Your task to perform on an android device: turn on location history Image 0: 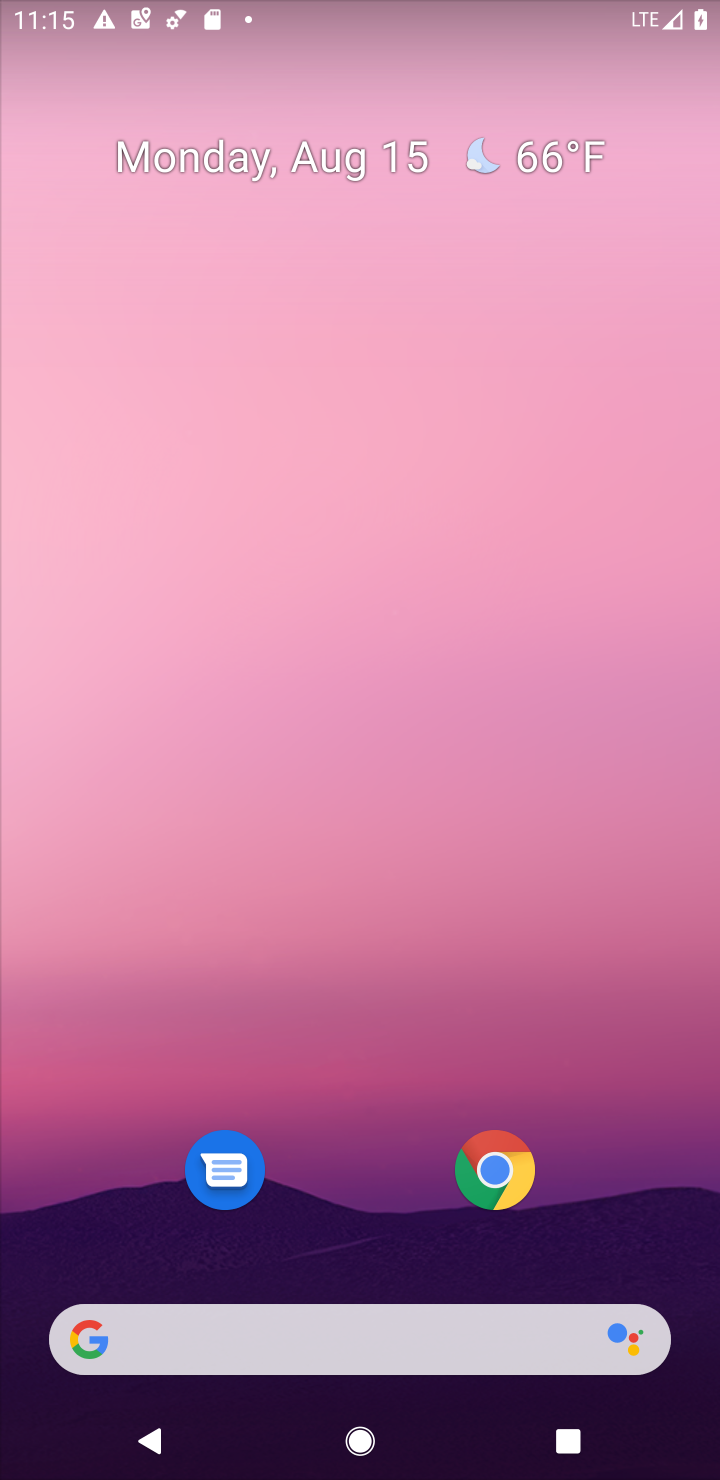
Step 0: drag from (380, 1279) to (403, 68)
Your task to perform on an android device: turn on location history Image 1: 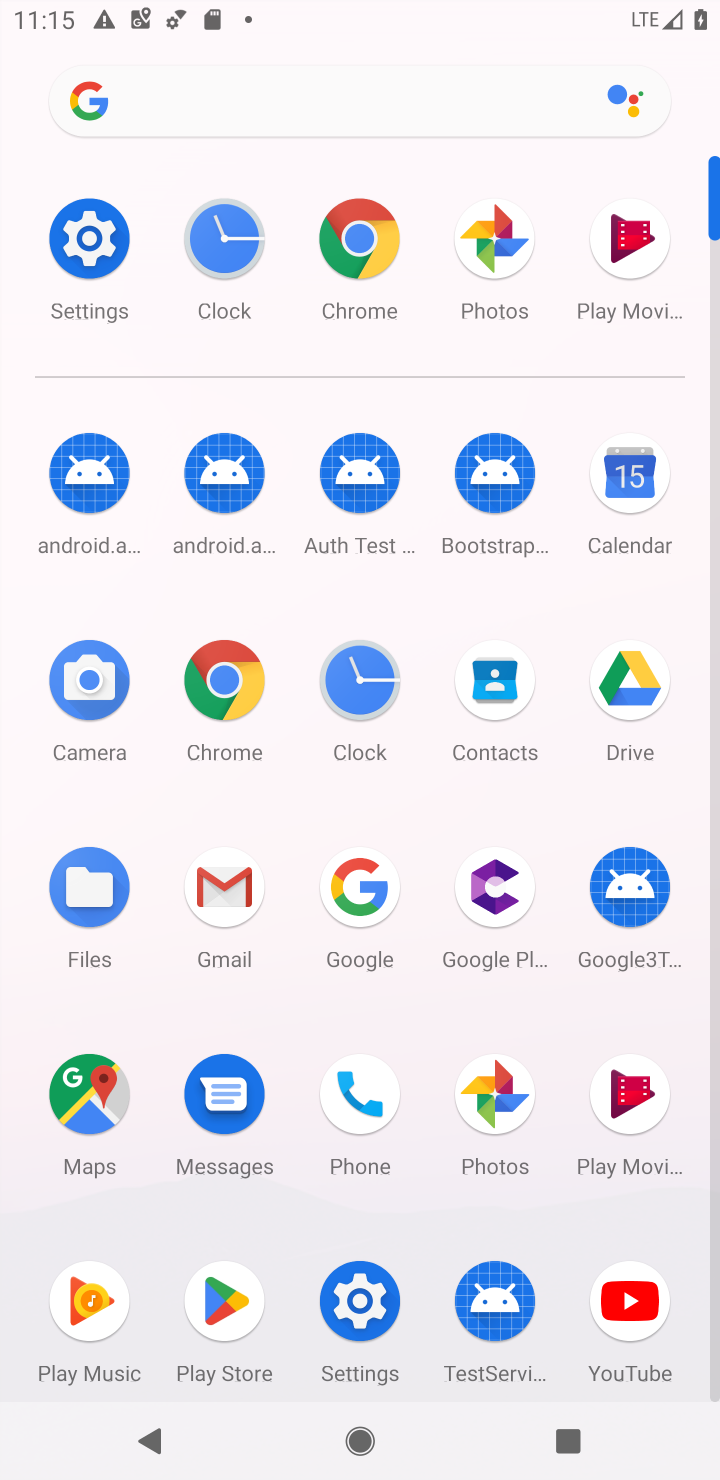
Step 1: click (82, 224)
Your task to perform on an android device: turn on location history Image 2: 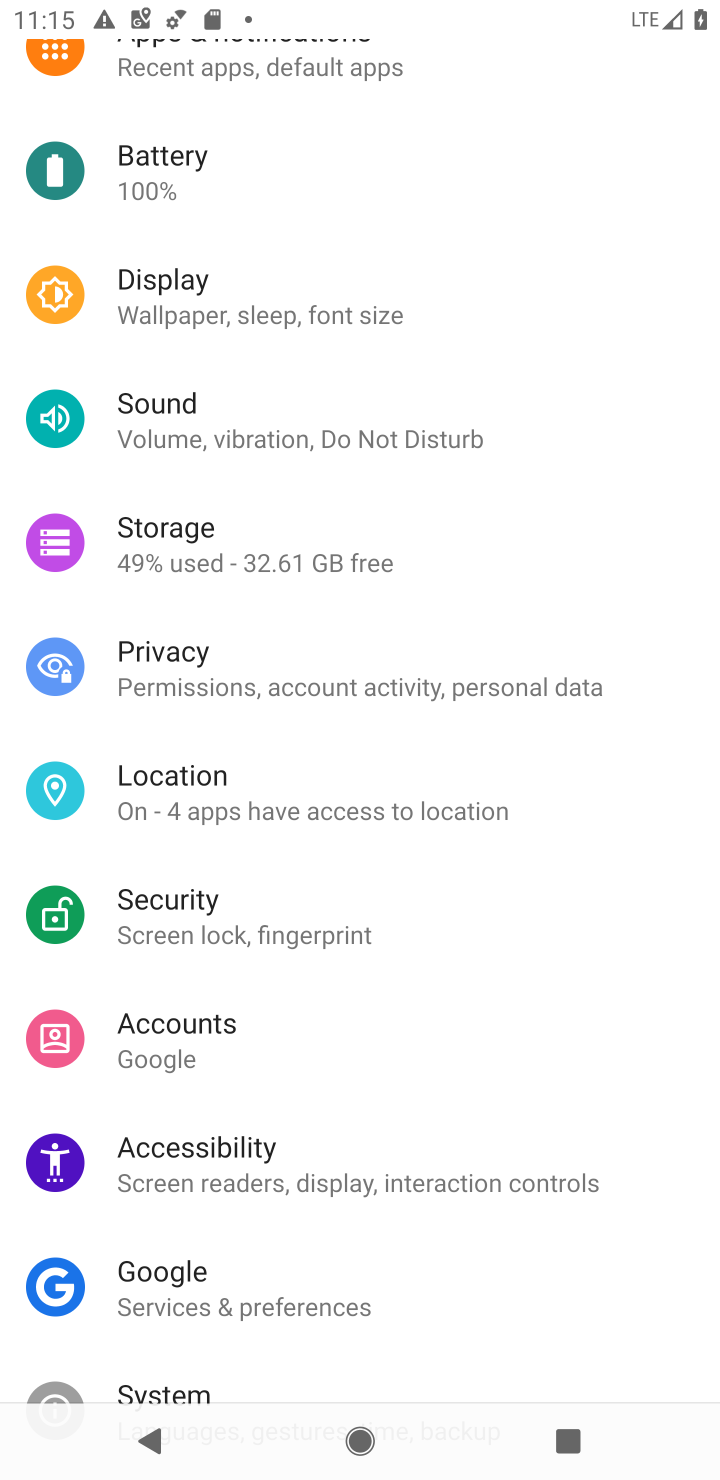
Step 2: click (248, 775)
Your task to perform on an android device: turn on location history Image 3: 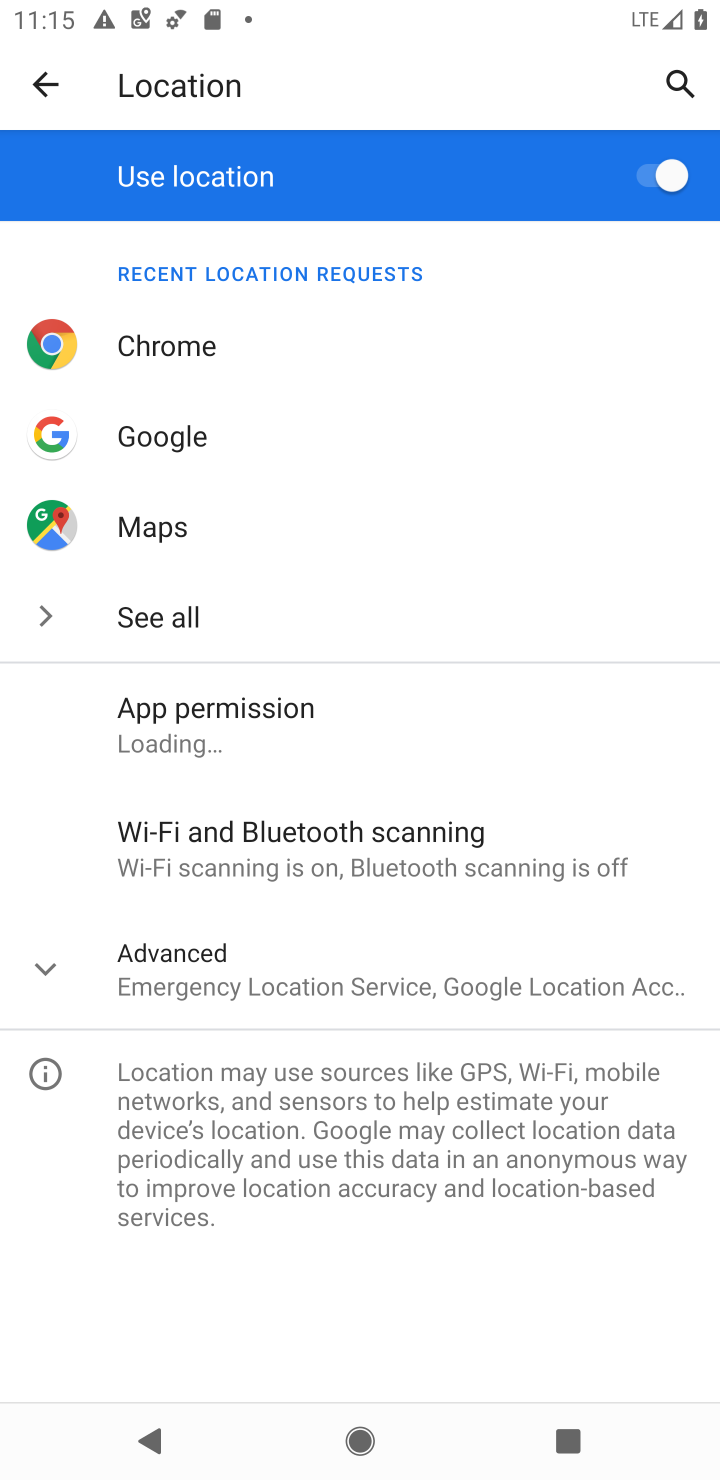
Step 3: click (48, 963)
Your task to perform on an android device: turn on location history Image 4: 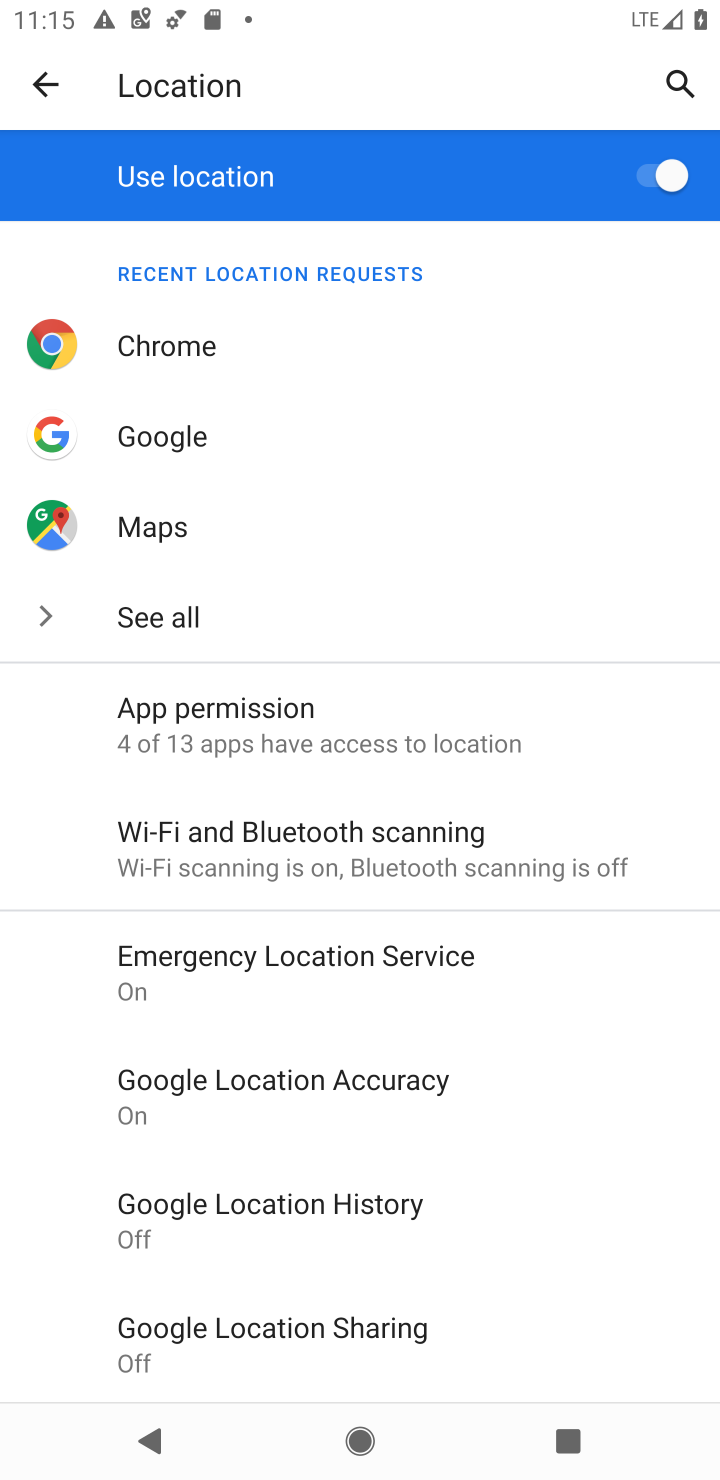
Step 4: click (447, 1206)
Your task to perform on an android device: turn on location history Image 5: 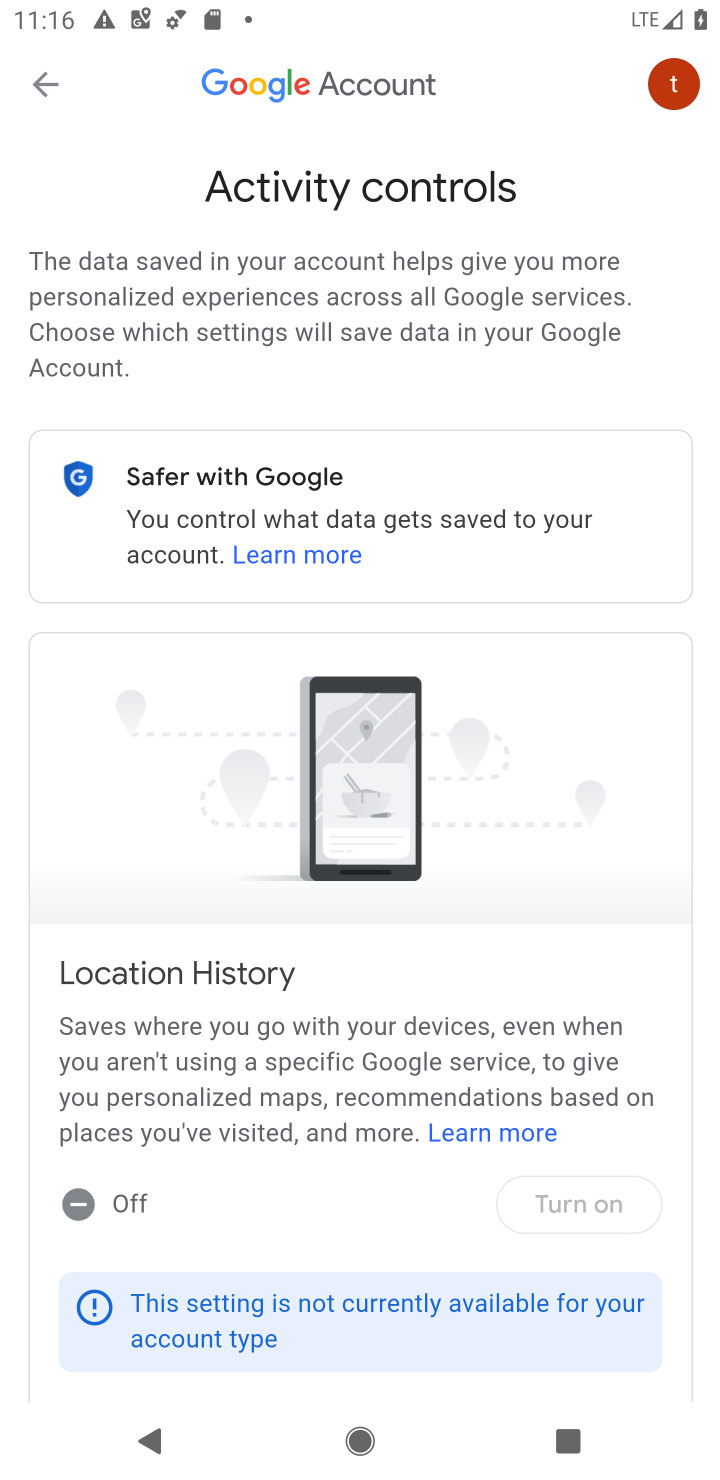
Step 5: click (352, 1305)
Your task to perform on an android device: turn on location history Image 6: 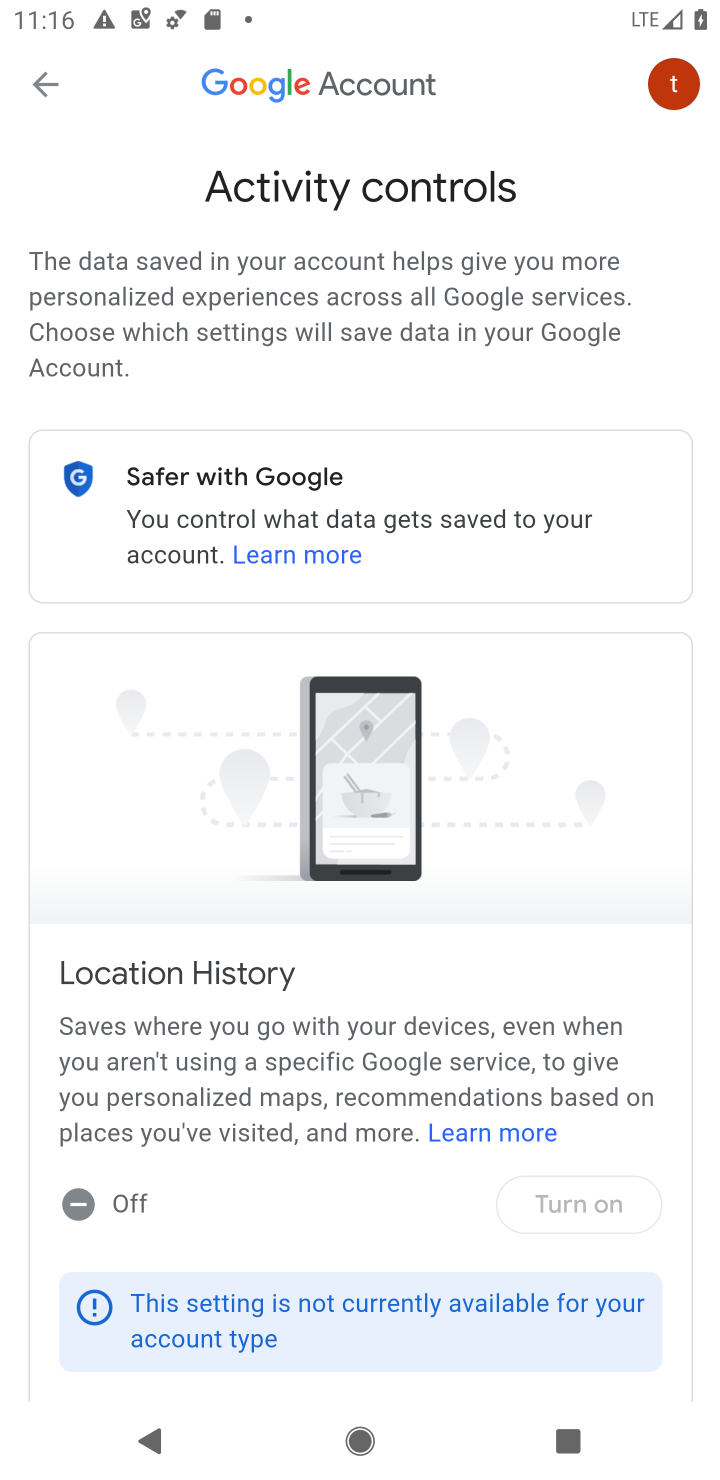
Step 6: task complete